Your task to perform on an android device: What's the weather like in Hong Kong? Image 0: 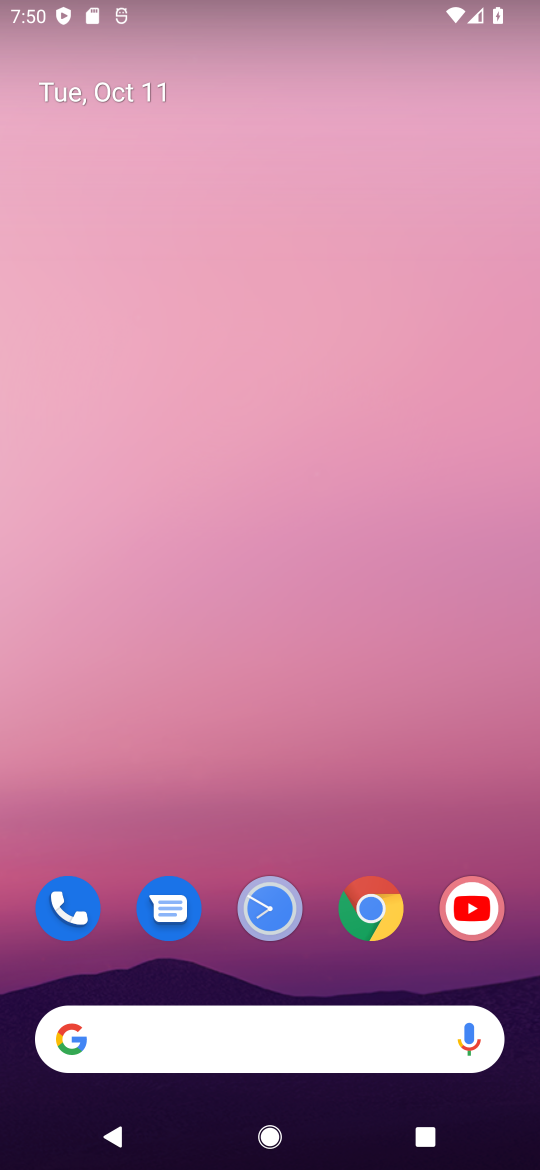
Step 0: click (196, 1010)
Your task to perform on an android device: What's the weather like in Hong Kong? Image 1: 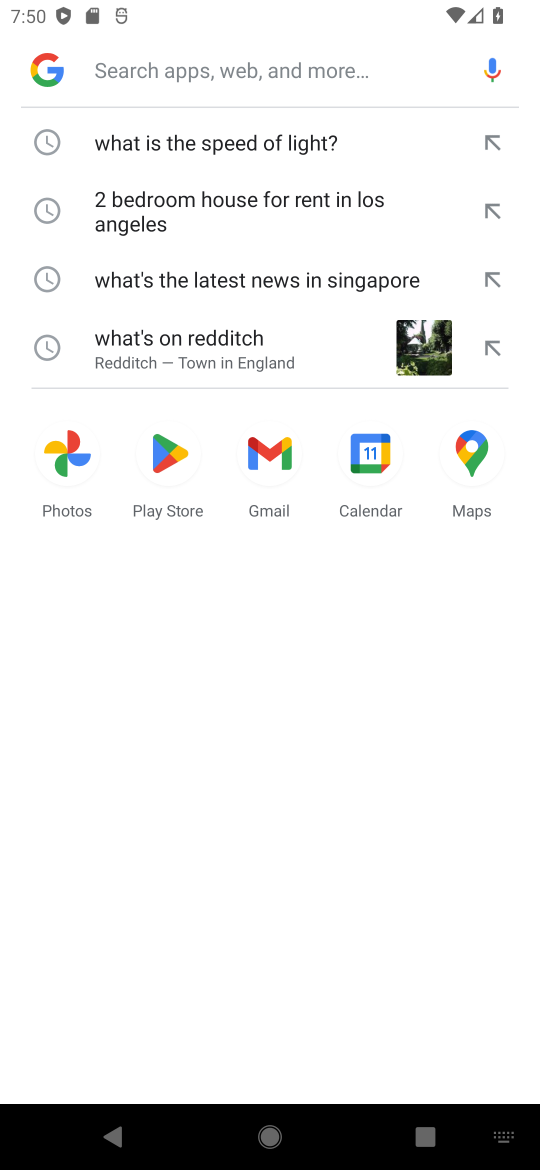
Step 1: type "whats the weather like in hong kong"
Your task to perform on an android device: What's the weather like in Hong Kong? Image 2: 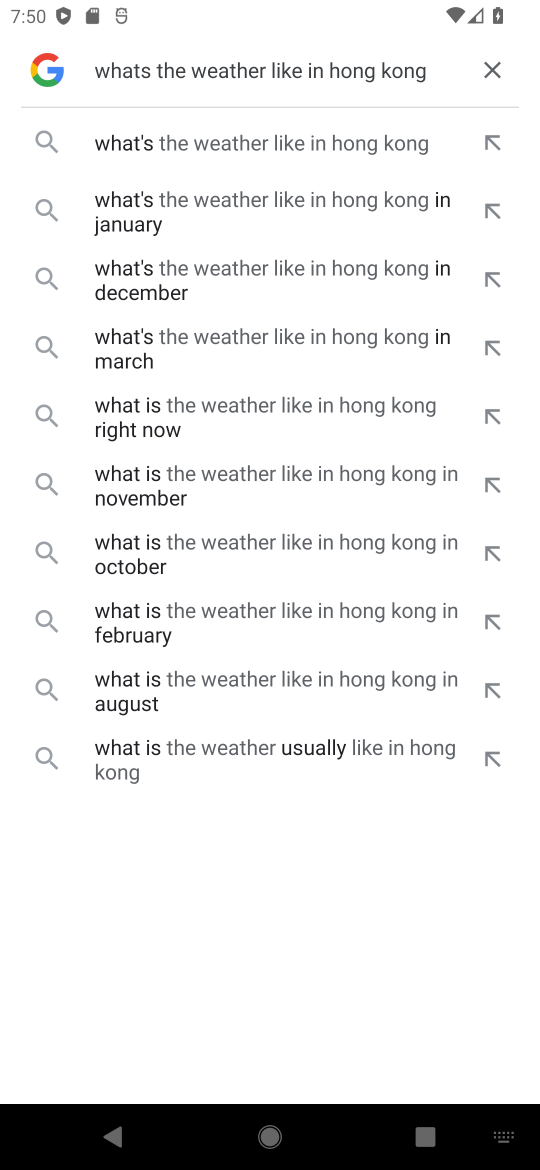
Step 2: click (242, 147)
Your task to perform on an android device: What's the weather like in Hong Kong? Image 3: 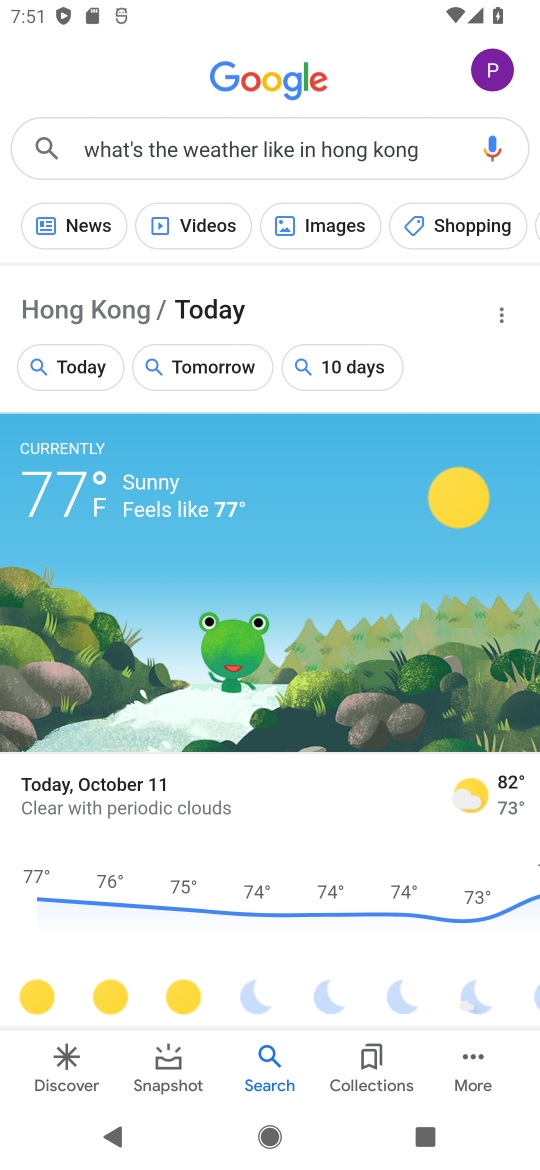
Step 3: task complete